Your task to perform on an android device: see tabs open on other devices in the chrome app Image 0: 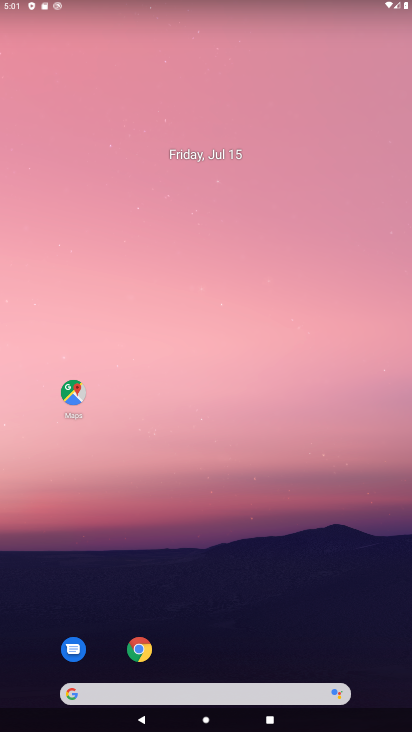
Step 0: click (140, 652)
Your task to perform on an android device: see tabs open on other devices in the chrome app Image 1: 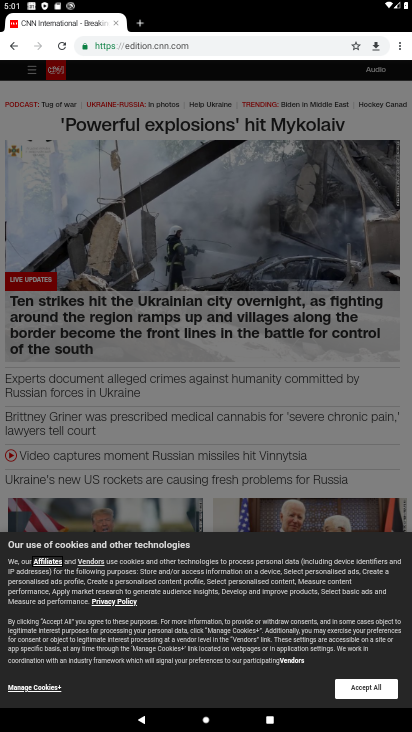
Step 1: click (400, 47)
Your task to perform on an android device: see tabs open on other devices in the chrome app Image 2: 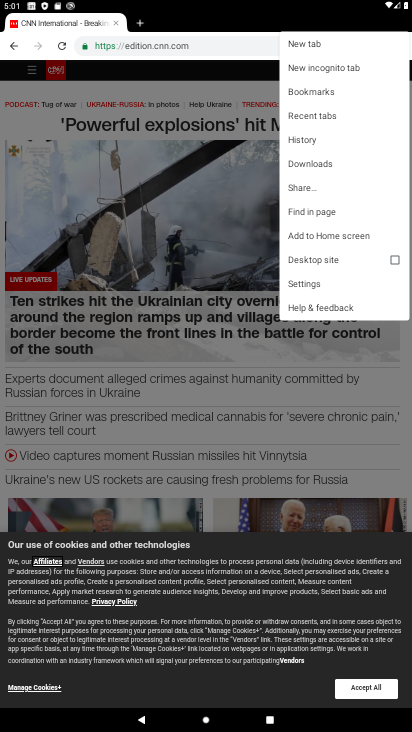
Step 2: click (326, 118)
Your task to perform on an android device: see tabs open on other devices in the chrome app Image 3: 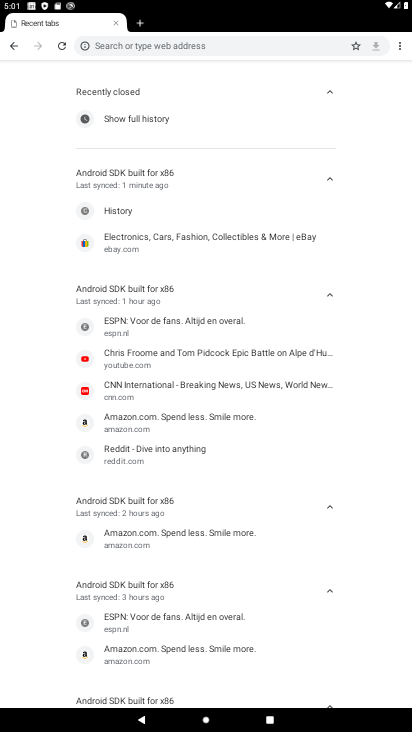
Step 3: task complete